Your task to perform on an android device: Show me productivity apps on the Play Store Image 0: 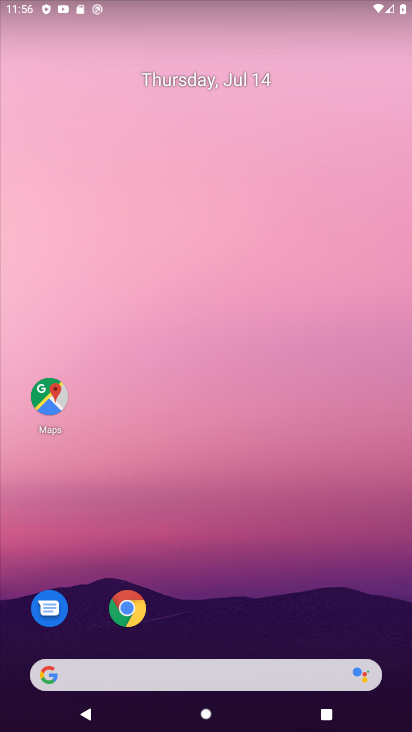
Step 0: drag from (221, 605) to (252, 145)
Your task to perform on an android device: Show me productivity apps on the Play Store Image 1: 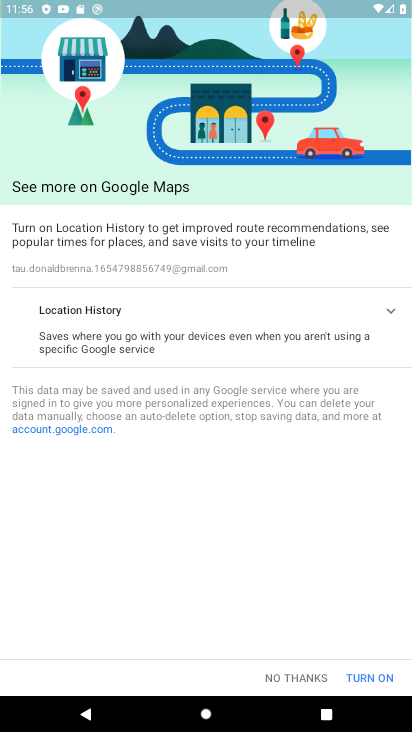
Step 1: press home button
Your task to perform on an android device: Show me productivity apps on the Play Store Image 2: 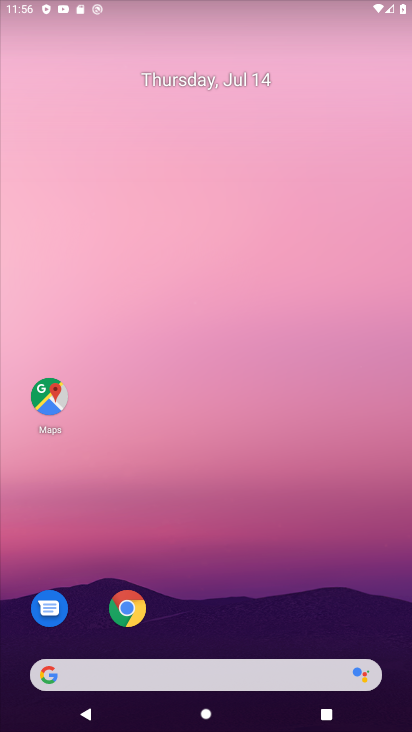
Step 2: drag from (215, 624) to (241, 109)
Your task to perform on an android device: Show me productivity apps on the Play Store Image 3: 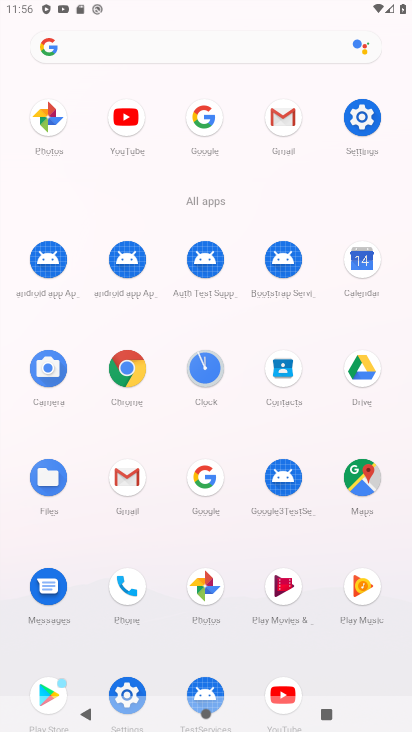
Step 3: drag from (164, 559) to (162, 199)
Your task to perform on an android device: Show me productivity apps on the Play Store Image 4: 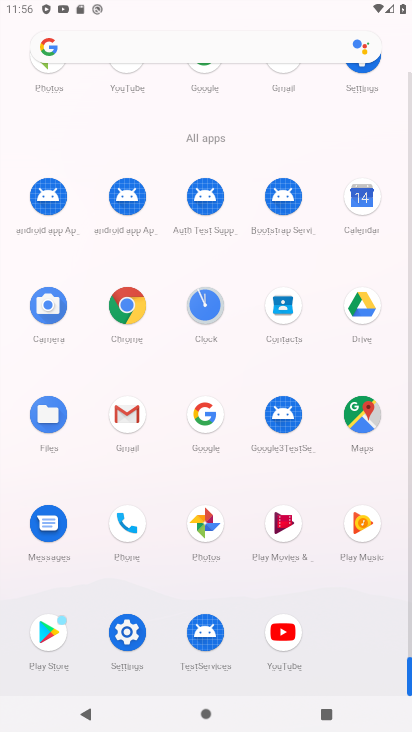
Step 4: click (42, 624)
Your task to perform on an android device: Show me productivity apps on the Play Store Image 5: 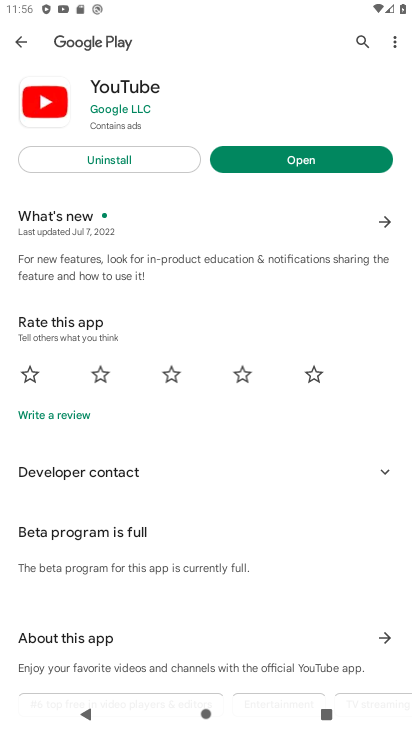
Step 5: press back button
Your task to perform on an android device: Show me productivity apps on the Play Store Image 6: 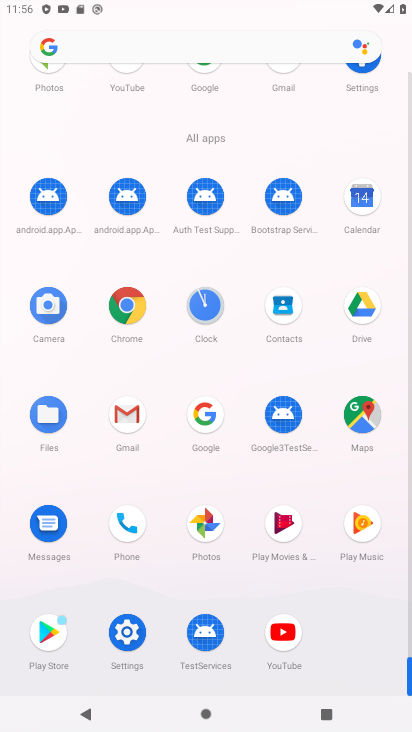
Step 6: click (43, 627)
Your task to perform on an android device: Show me productivity apps on the Play Store Image 7: 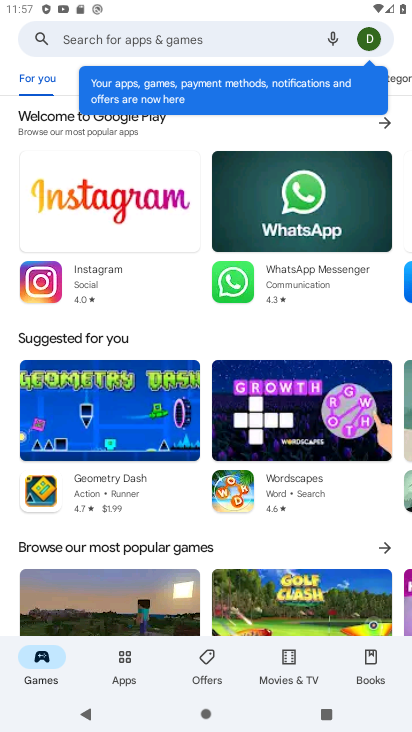
Step 7: click (128, 665)
Your task to perform on an android device: Show me productivity apps on the Play Store Image 8: 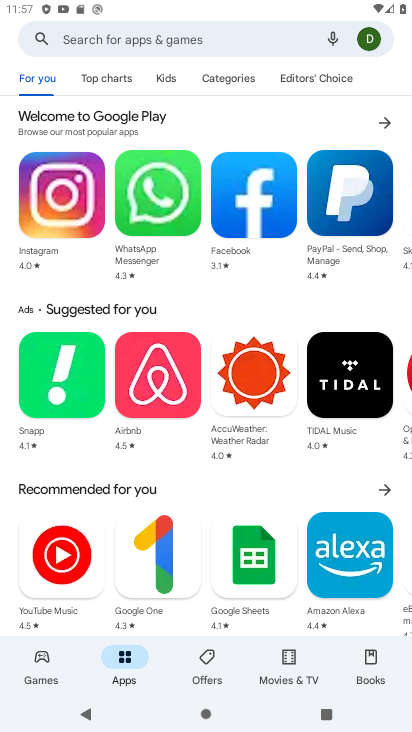
Step 8: click (231, 77)
Your task to perform on an android device: Show me productivity apps on the Play Store Image 9: 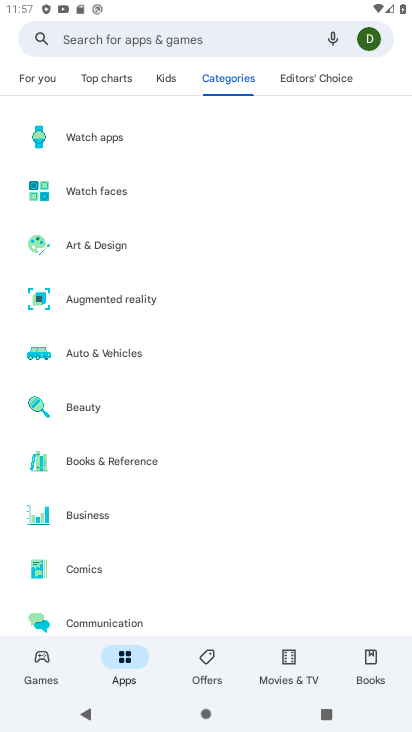
Step 9: drag from (194, 603) to (205, 79)
Your task to perform on an android device: Show me productivity apps on the Play Store Image 10: 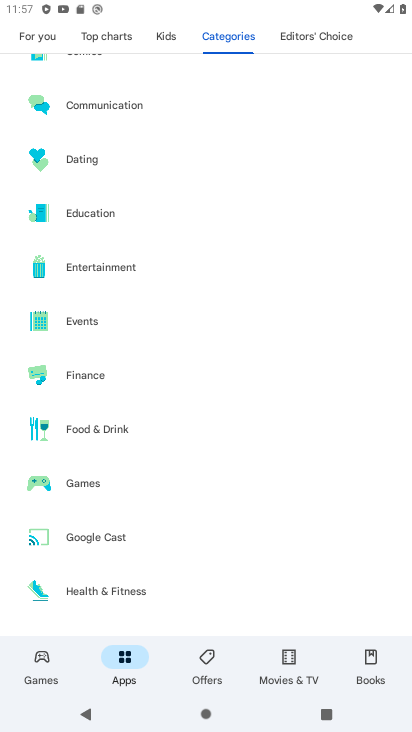
Step 10: drag from (146, 596) to (196, 16)
Your task to perform on an android device: Show me productivity apps on the Play Store Image 11: 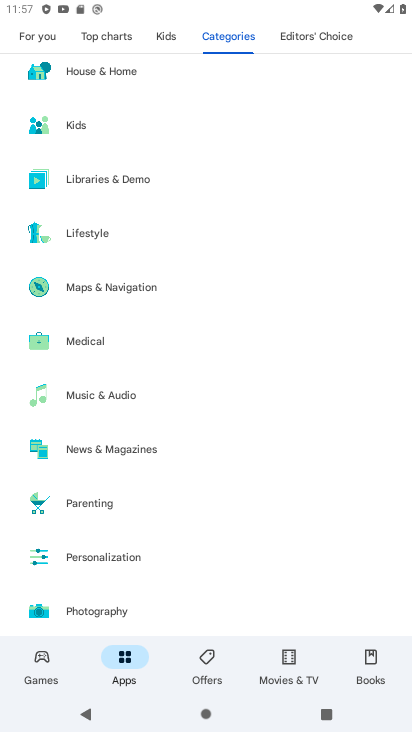
Step 11: drag from (191, 608) to (206, 113)
Your task to perform on an android device: Show me productivity apps on the Play Store Image 12: 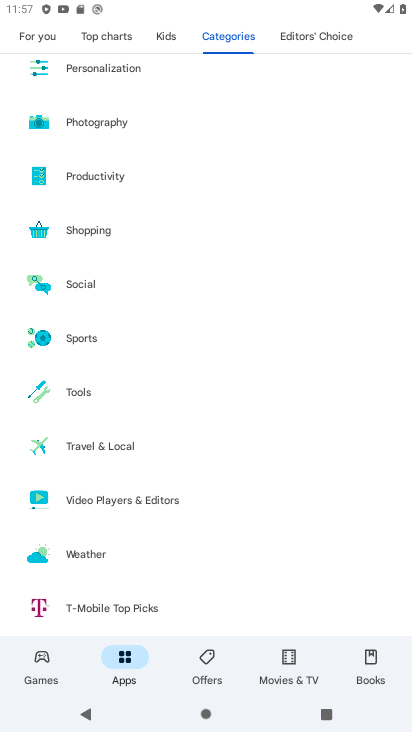
Step 12: click (106, 175)
Your task to perform on an android device: Show me productivity apps on the Play Store Image 13: 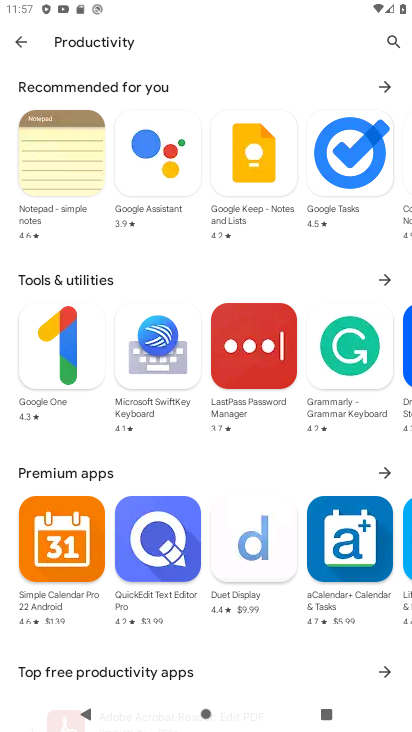
Step 13: task complete